Your task to perform on an android device: Open Google Chrome Image 0: 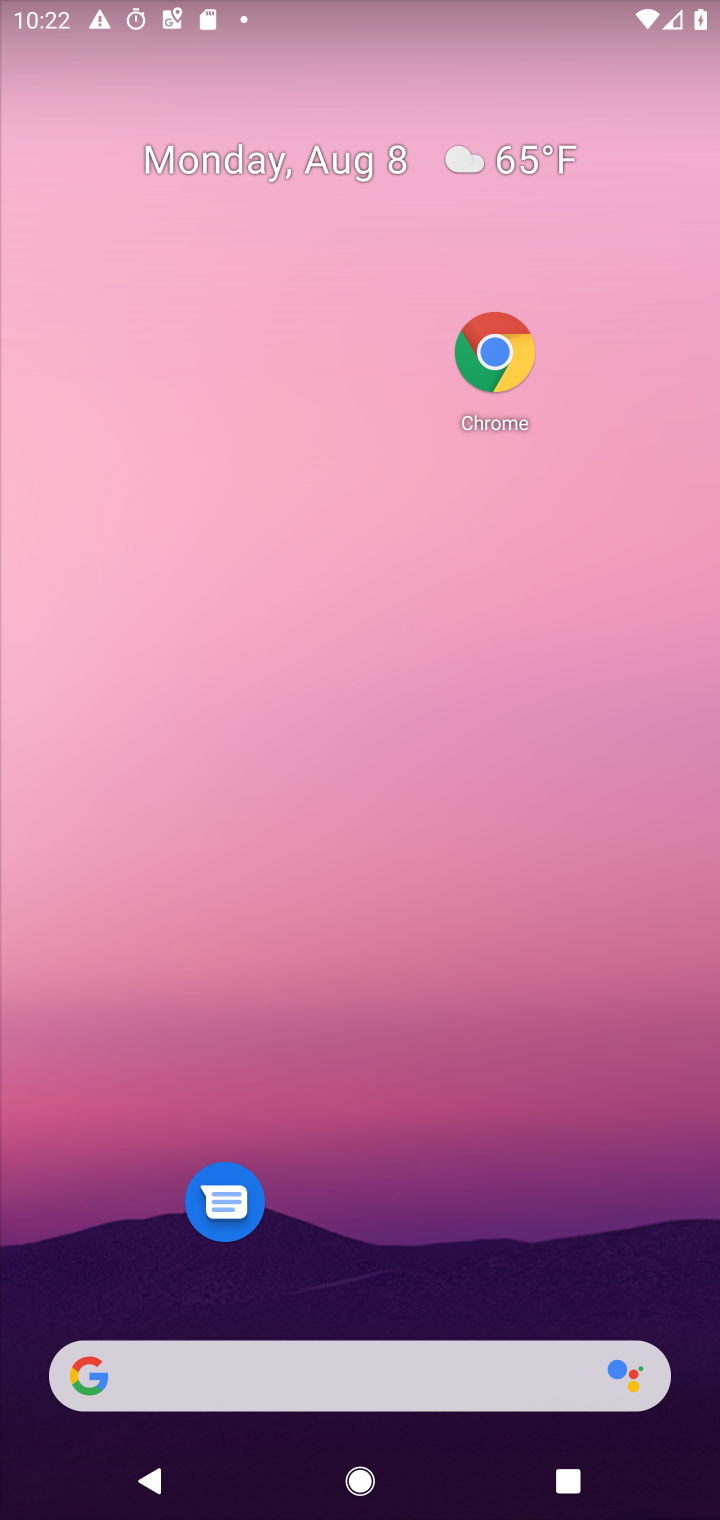
Step 0: drag from (556, 843) to (717, 112)
Your task to perform on an android device: Open Google Chrome Image 1: 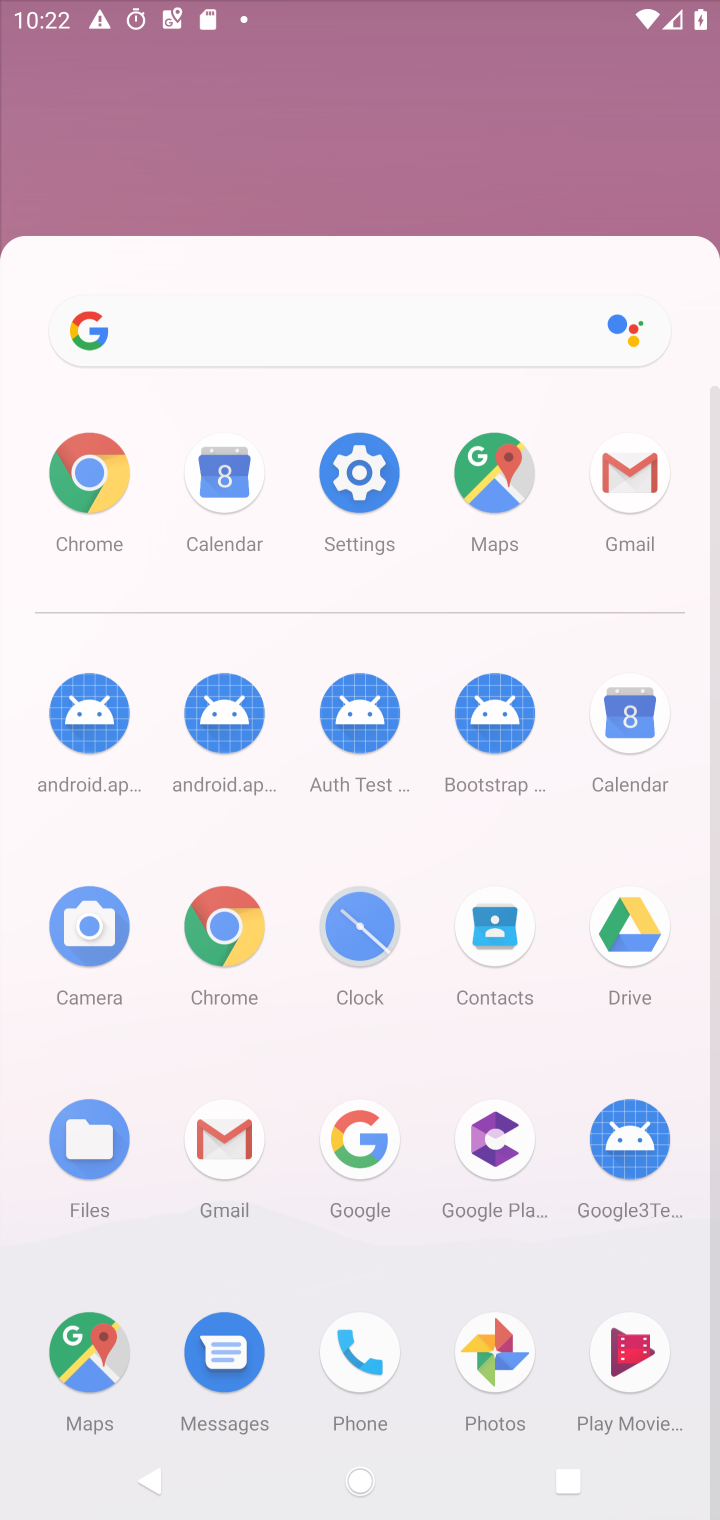
Step 1: drag from (396, 989) to (469, 371)
Your task to perform on an android device: Open Google Chrome Image 2: 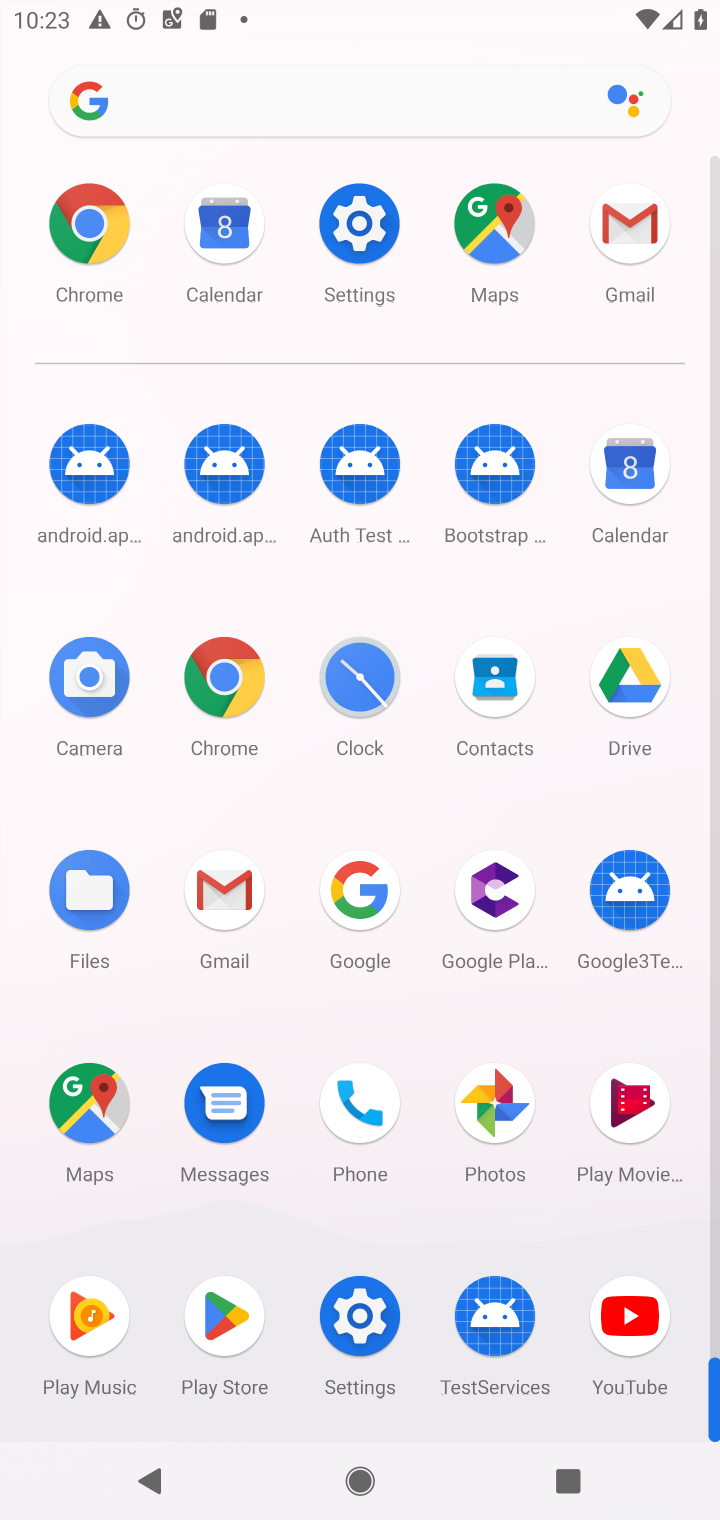
Step 2: click (86, 230)
Your task to perform on an android device: Open Google Chrome Image 3: 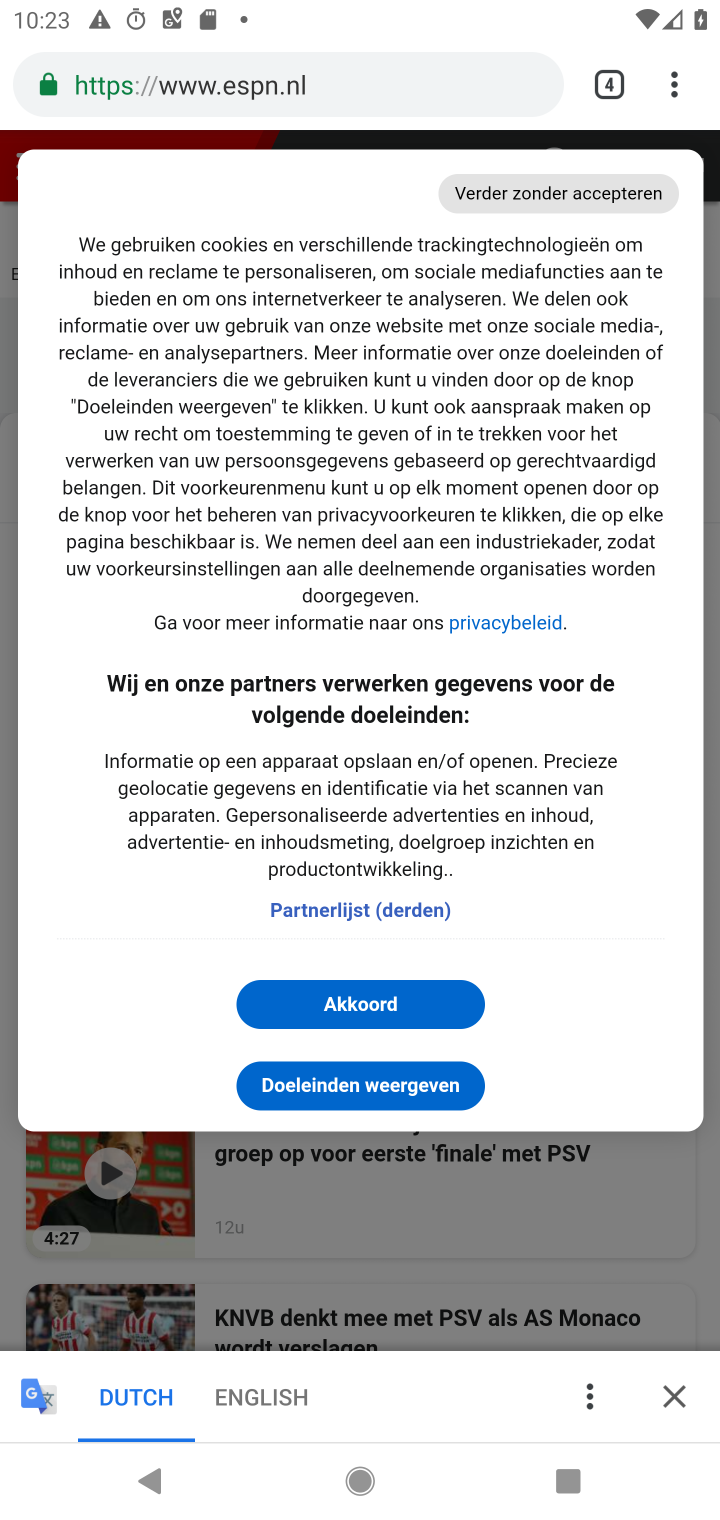
Step 3: task complete